Your task to perform on an android device: Open calendar and show me the first week of next month Image 0: 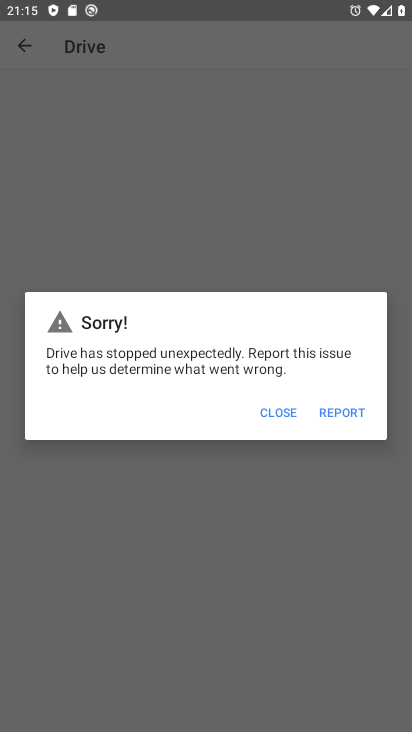
Step 0: press home button
Your task to perform on an android device: Open calendar and show me the first week of next month Image 1: 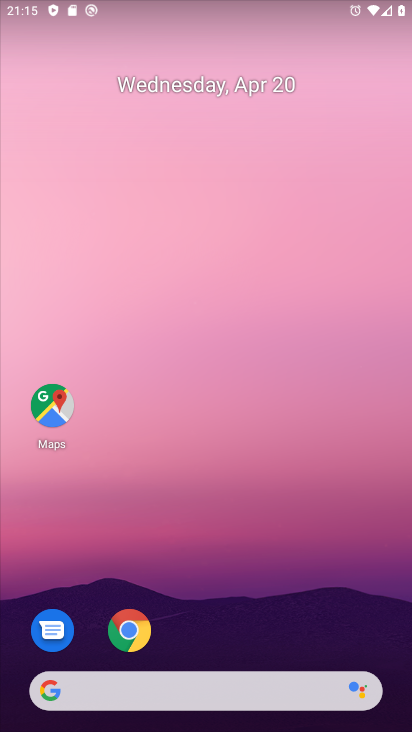
Step 1: drag from (241, 622) to (241, 504)
Your task to perform on an android device: Open calendar and show me the first week of next month Image 2: 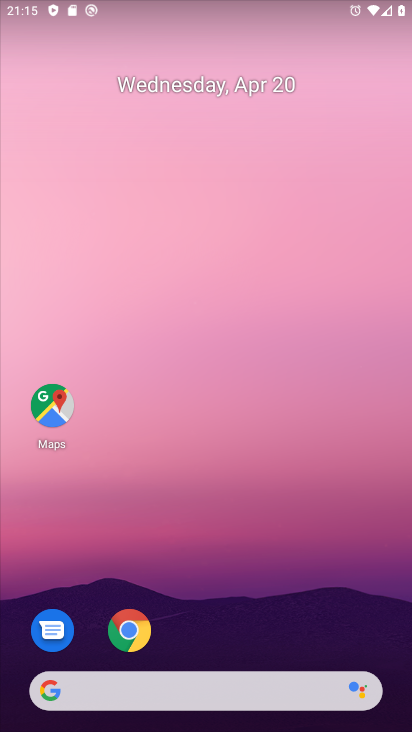
Step 2: drag from (291, 440) to (348, 30)
Your task to perform on an android device: Open calendar and show me the first week of next month Image 3: 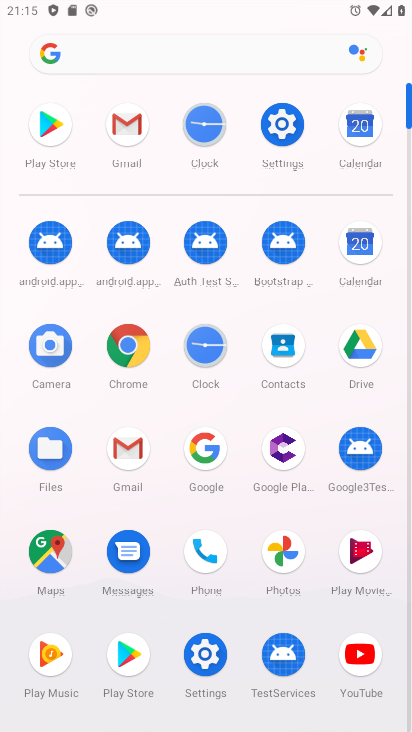
Step 3: click (365, 238)
Your task to perform on an android device: Open calendar and show me the first week of next month Image 4: 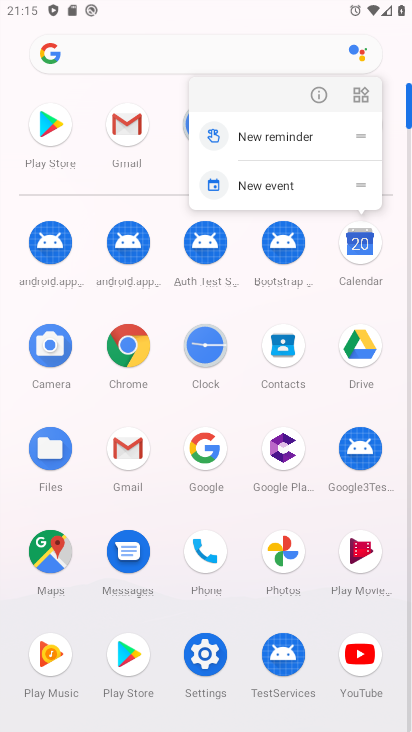
Step 4: click (364, 242)
Your task to perform on an android device: Open calendar and show me the first week of next month Image 5: 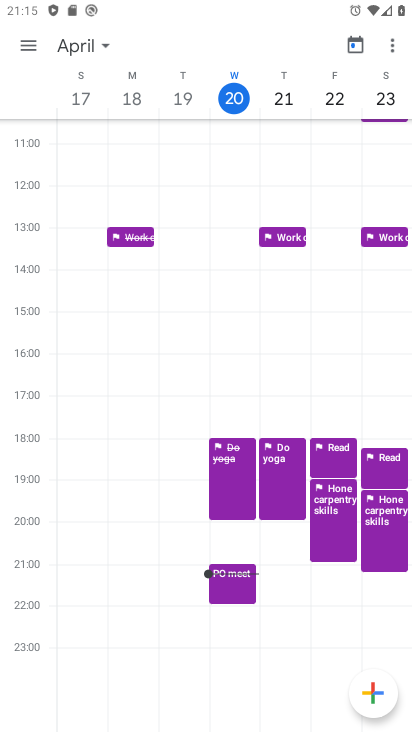
Step 5: click (102, 42)
Your task to perform on an android device: Open calendar and show me the first week of next month Image 6: 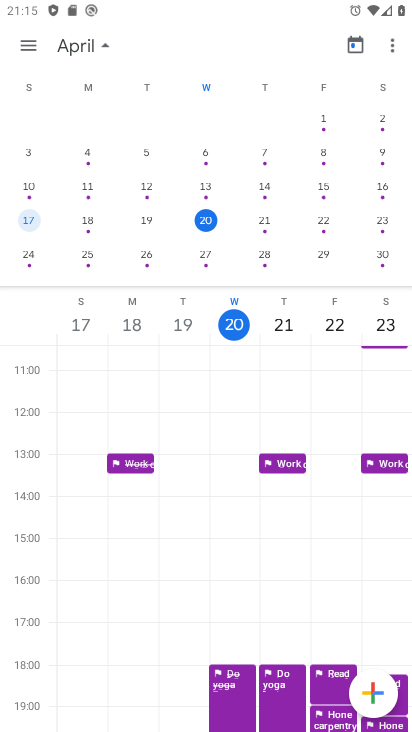
Step 6: task complete